Your task to perform on an android device: Open Amazon Image 0: 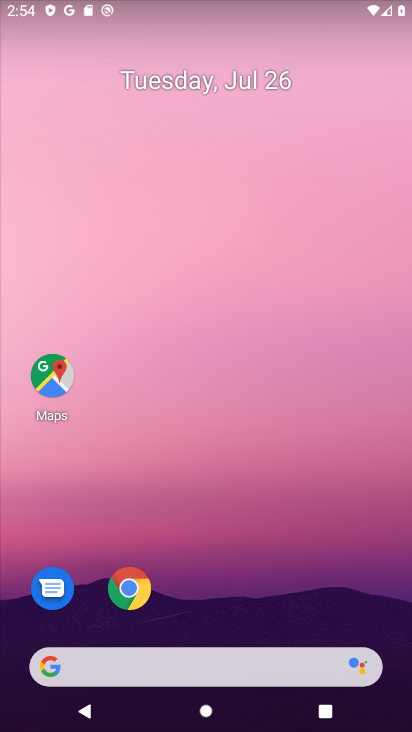
Step 0: click (146, 590)
Your task to perform on an android device: Open Amazon Image 1: 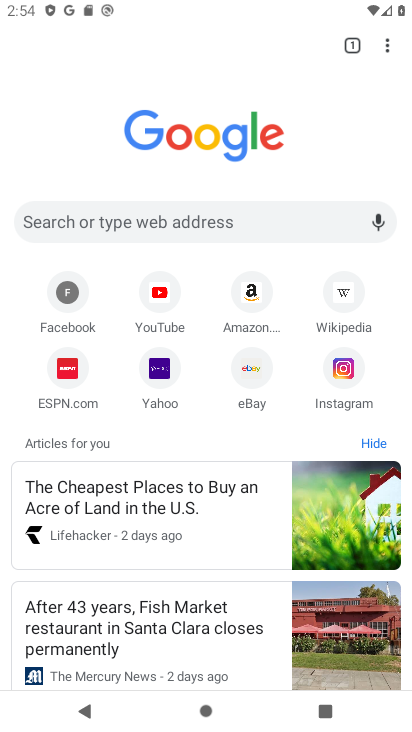
Step 1: click (257, 291)
Your task to perform on an android device: Open Amazon Image 2: 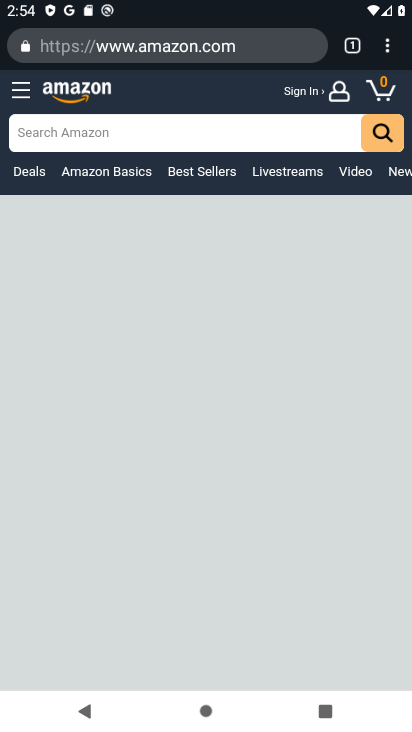
Step 2: task complete